Your task to perform on an android device: Go to battery settings Image 0: 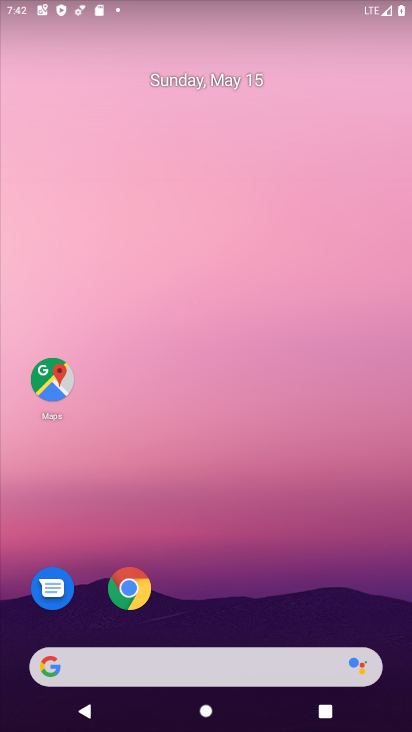
Step 0: drag from (312, 613) to (201, 23)
Your task to perform on an android device: Go to battery settings Image 1: 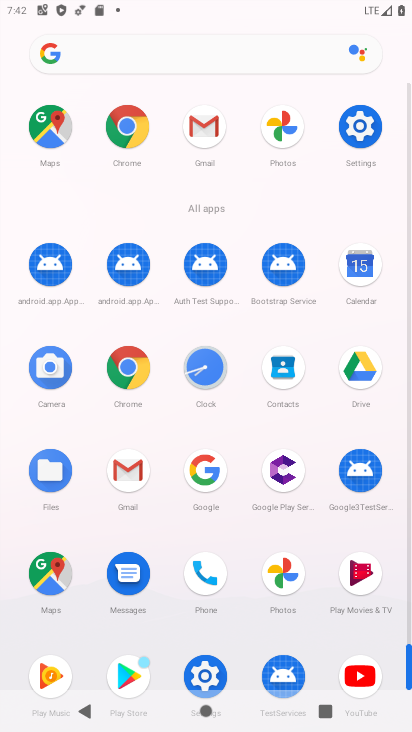
Step 1: click (205, 663)
Your task to perform on an android device: Go to battery settings Image 2: 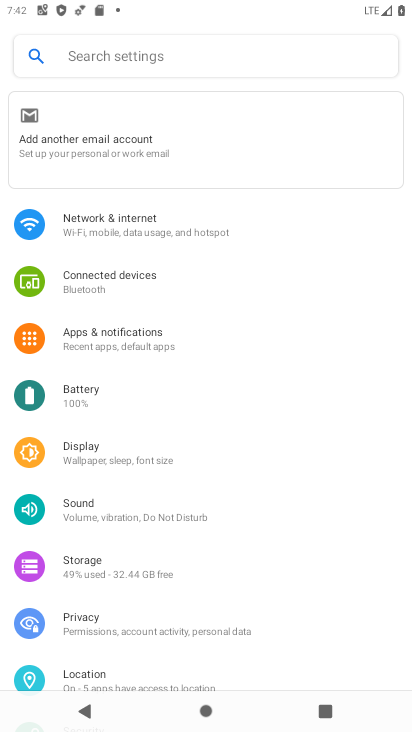
Step 2: click (102, 405)
Your task to perform on an android device: Go to battery settings Image 3: 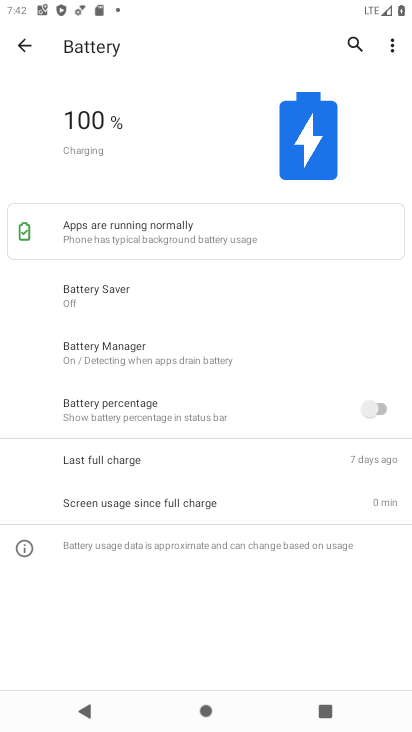
Step 3: task complete